Your task to perform on an android device: turn on wifi Image 0: 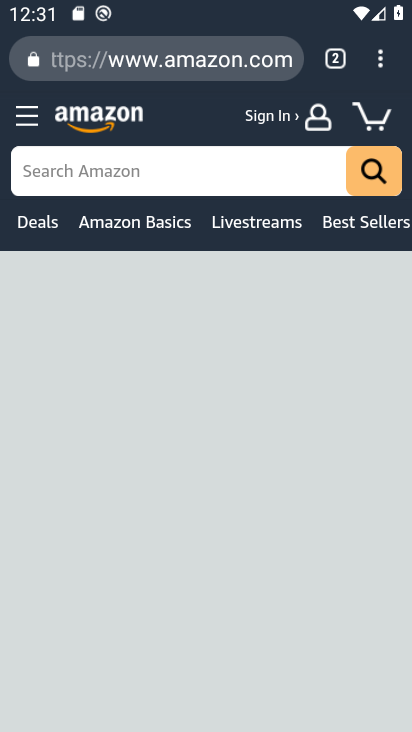
Step 0: press home button
Your task to perform on an android device: turn on wifi Image 1: 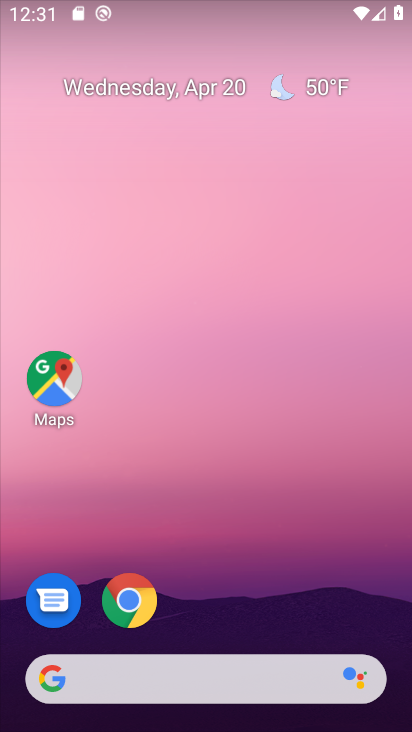
Step 1: drag from (268, 536) to (335, 226)
Your task to perform on an android device: turn on wifi Image 2: 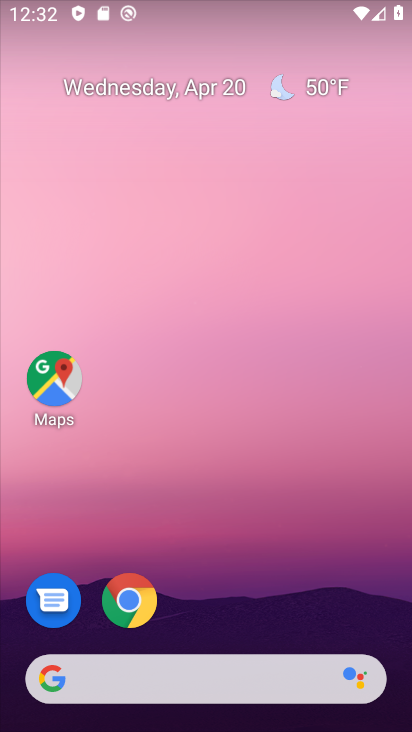
Step 2: drag from (249, 627) to (280, 145)
Your task to perform on an android device: turn on wifi Image 3: 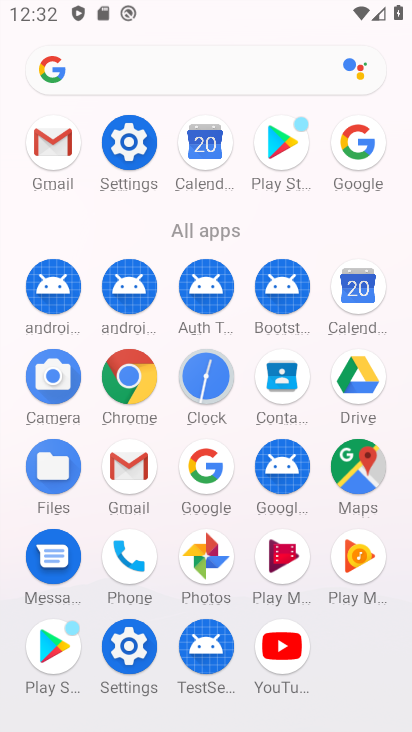
Step 3: click (125, 145)
Your task to perform on an android device: turn on wifi Image 4: 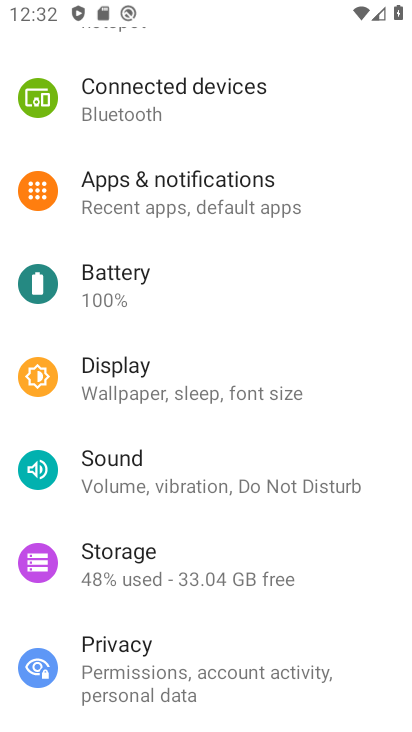
Step 4: drag from (284, 151) to (241, 496)
Your task to perform on an android device: turn on wifi Image 5: 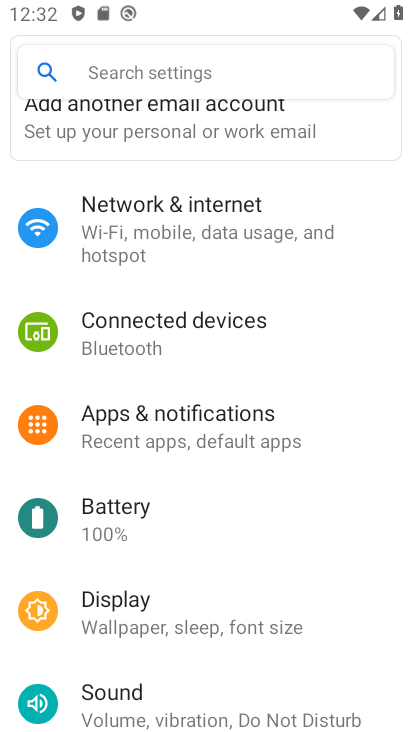
Step 5: click (224, 229)
Your task to perform on an android device: turn on wifi Image 6: 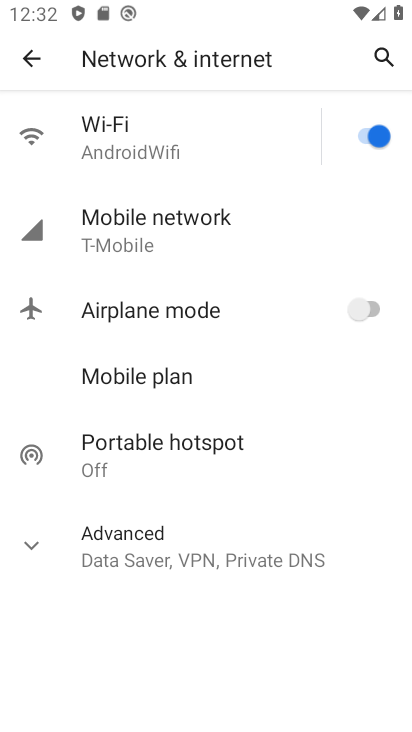
Step 6: task complete